Your task to perform on an android device: open app "Pandora - Music & Podcasts" (install if not already installed) Image 0: 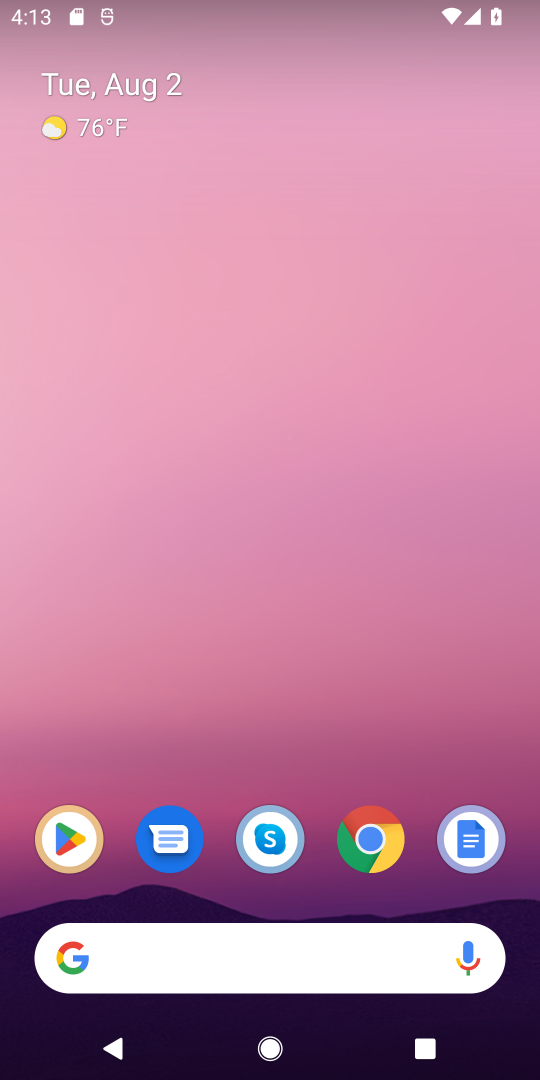
Step 0: click (73, 855)
Your task to perform on an android device: open app "Pandora - Music & Podcasts" (install if not already installed) Image 1: 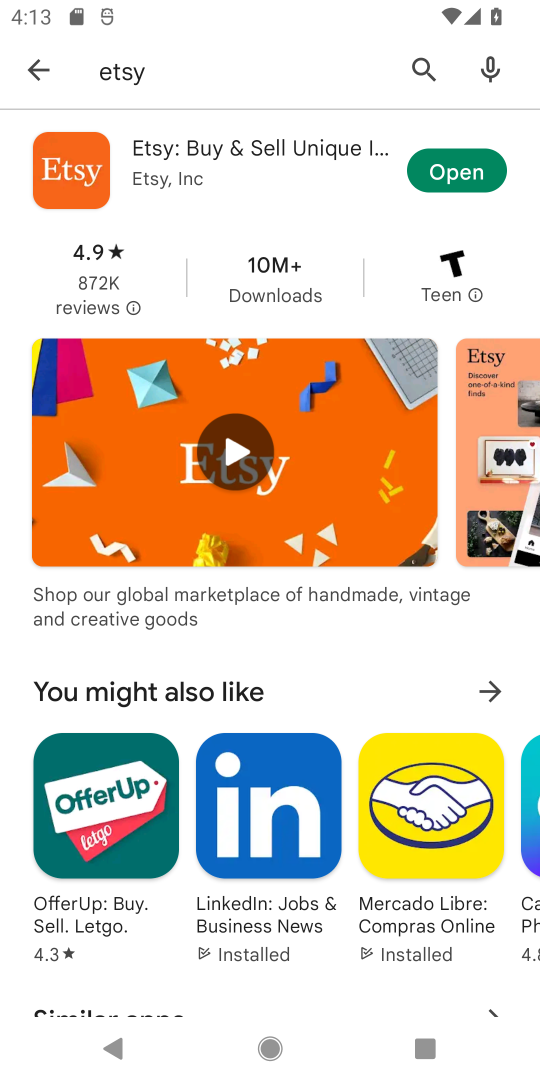
Step 1: click (429, 84)
Your task to perform on an android device: open app "Pandora - Music & Podcasts" (install if not already installed) Image 2: 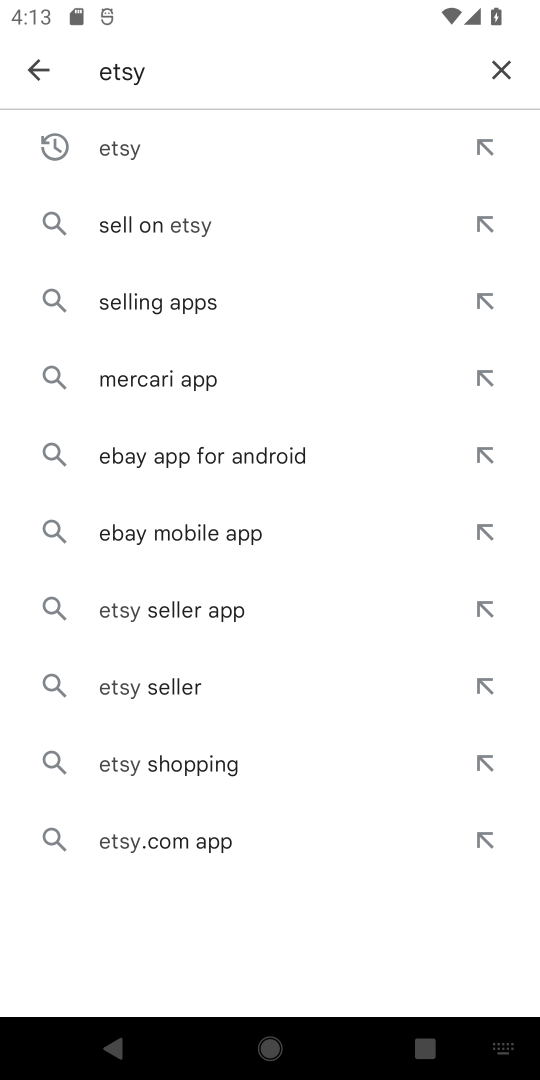
Step 2: click (501, 67)
Your task to perform on an android device: open app "Pandora - Music & Podcasts" (install if not already installed) Image 3: 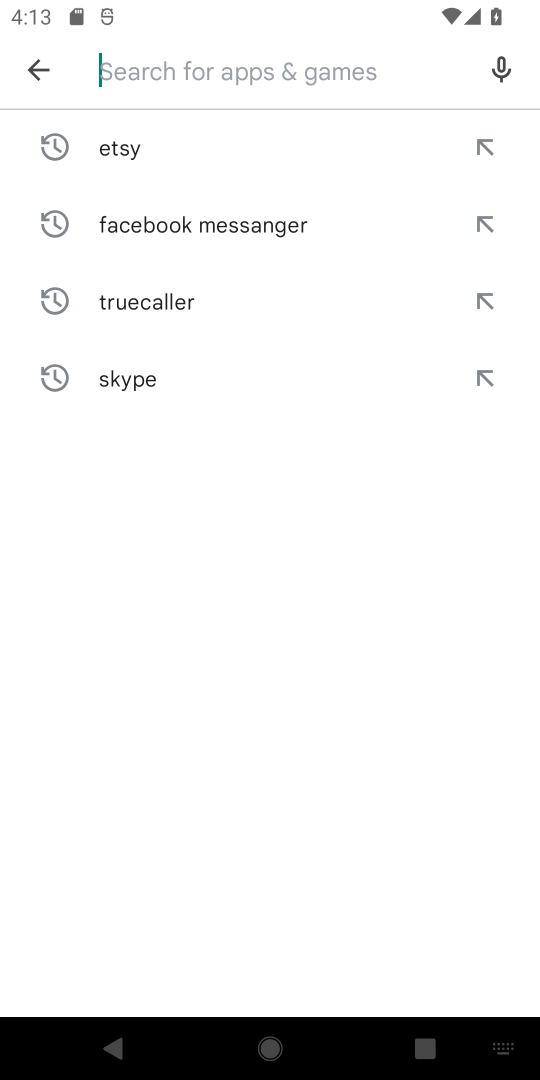
Step 3: type "pandora"
Your task to perform on an android device: open app "Pandora - Music & Podcasts" (install if not already installed) Image 4: 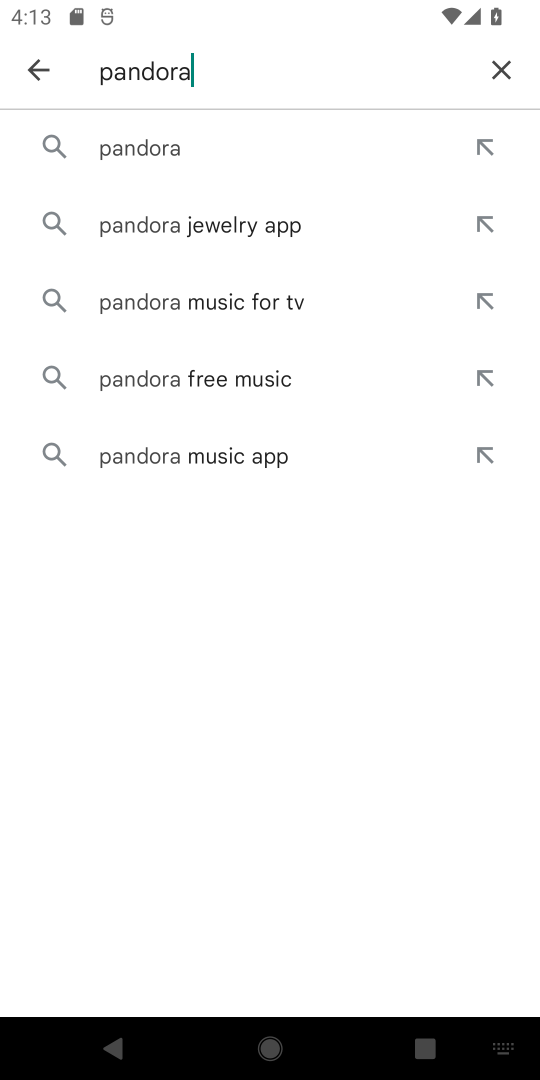
Step 4: click (279, 161)
Your task to perform on an android device: open app "Pandora - Music & Podcasts" (install if not already installed) Image 5: 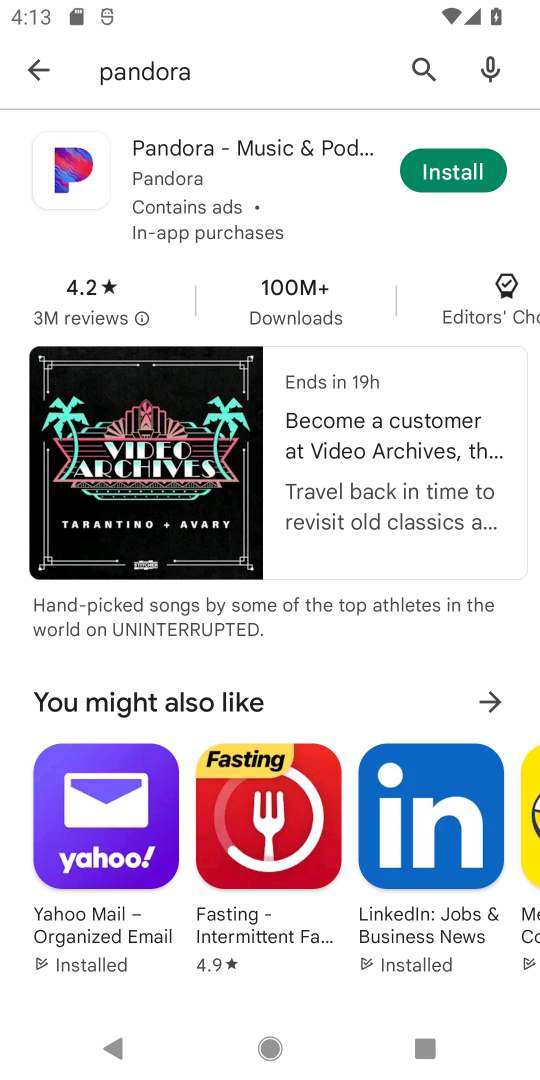
Step 5: click (476, 170)
Your task to perform on an android device: open app "Pandora - Music & Podcasts" (install if not already installed) Image 6: 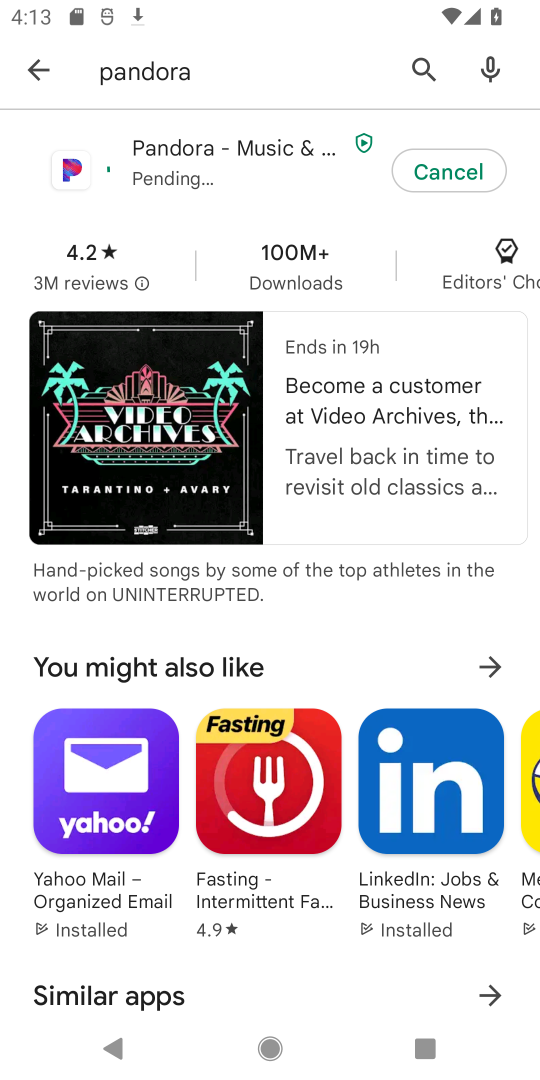
Step 6: task complete